Your task to perform on an android device: turn off improve location accuracy Image 0: 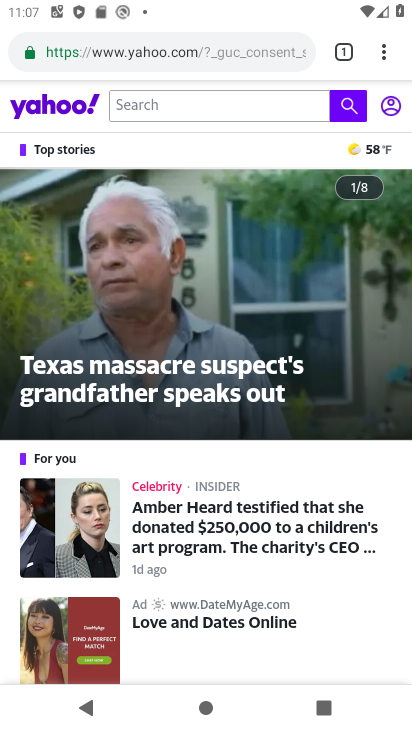
Step 0: press home button
Your task to perform on an android device: turn off improve location accuracy Image 1: 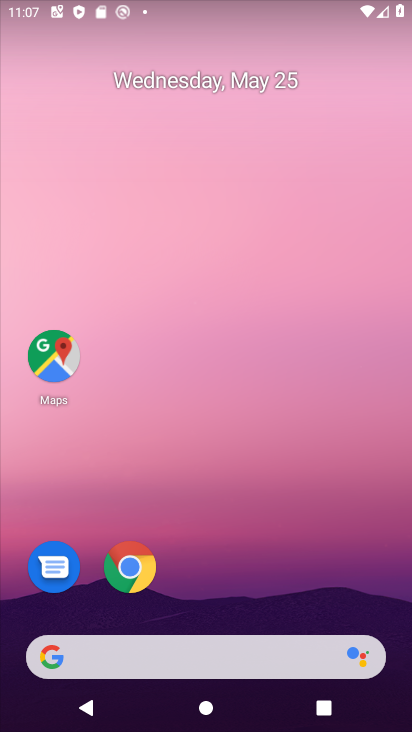
Step 1: drag from (176, 396) to (244, 5)
Your task to perform on an android device: turn off improve location accuracy Image 2: 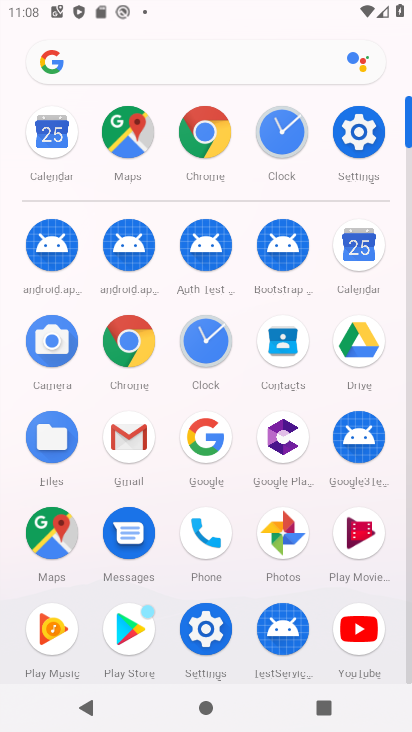
Step 2: click (377, 142)
Your task to perform on an android device: turn off improve location accuracy Image 3: 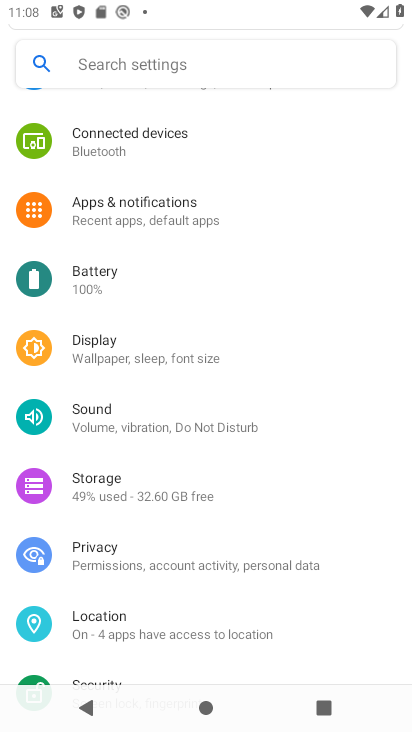
Step 3: click (110, 630)
Your task to perform on an android device: turn off improve location accuracy Image 4: 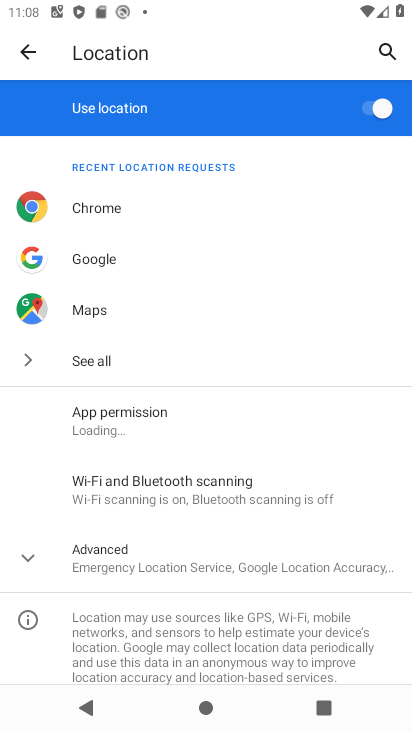
Step 4: click (172, 555)
Your task to perform on an android device: turn off improve location accuracy Image 5: 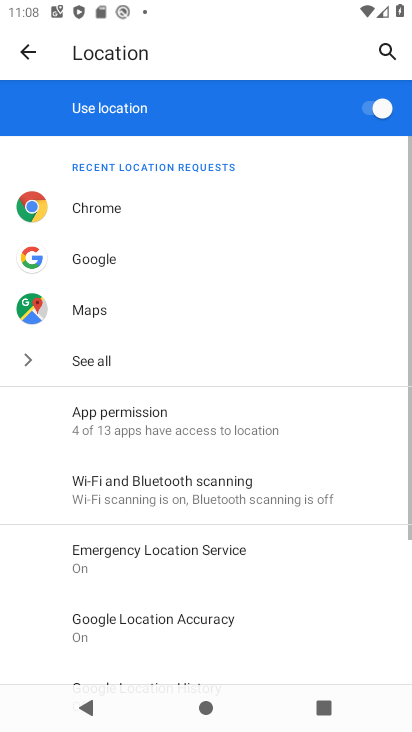
Step 5: drag from (231, 597) to (270, 366)
Your task to perform on an android device: turn off improve location accuracy Image 6: 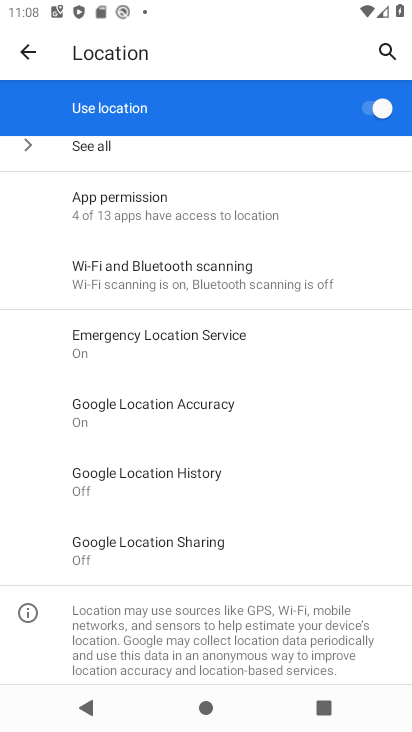
Step 6: click (184, 407)
Your task to perform on an android device: turn off improve location accuracy Image 7: 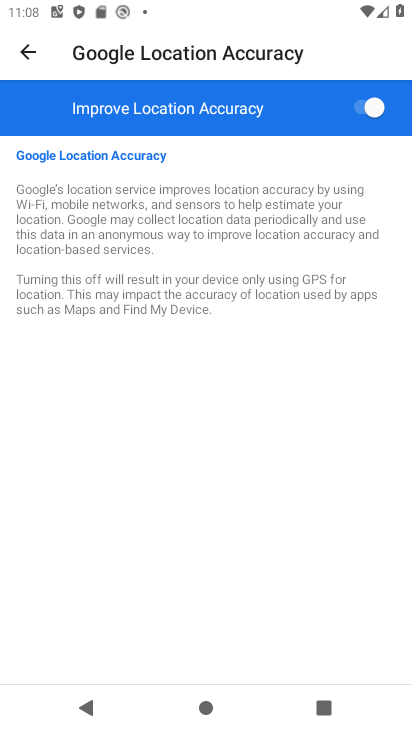
Step 7: click (354, 115)
Your task to perform on an android device: turn off improve location accuracy Image 8: 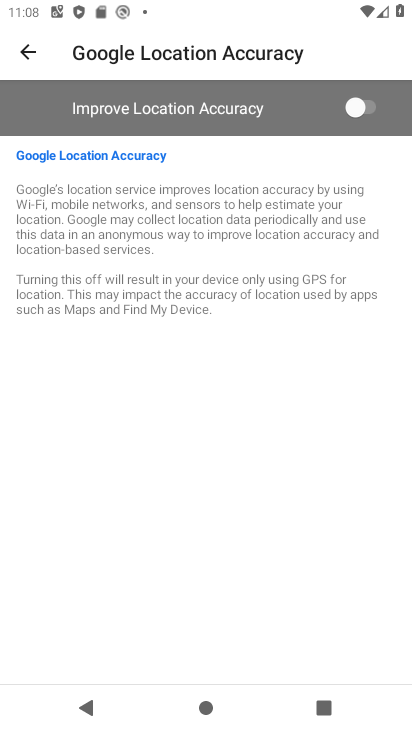
Step 8: task complete